Your task to perform on an android device: find which apps use the phone's location Image 0: 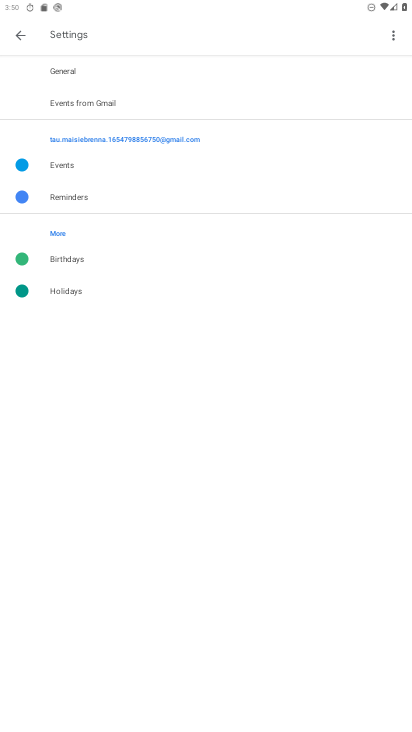
Step 0: press home button
Your task to perform on an android device: find which apps use the phone's location Image 1: 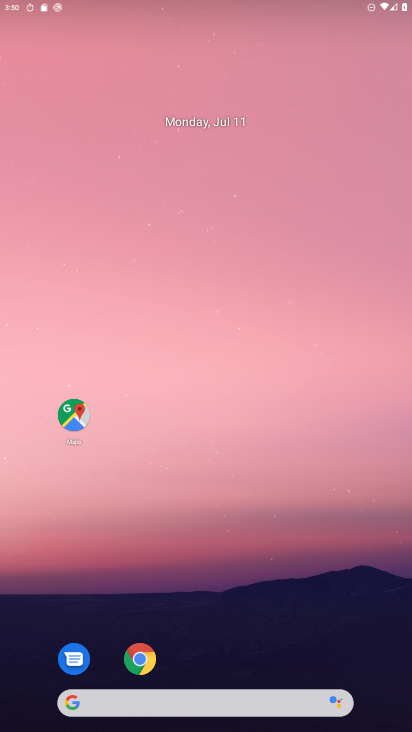
Step 1: drag from (185, 678) to (183, 276)
Your task to perform on an android device: find which apps use the phone's location Image 2: 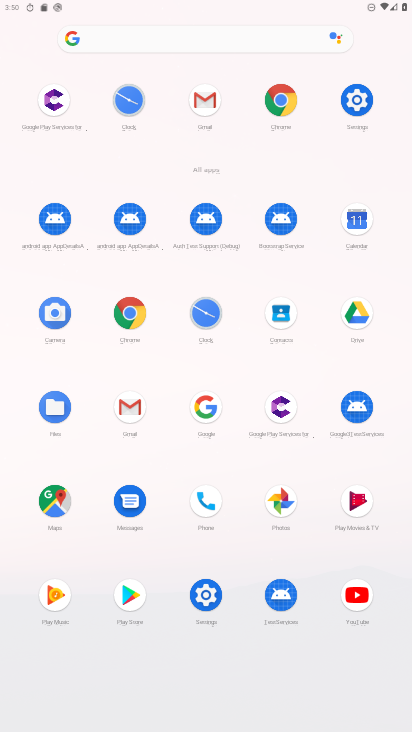
Step 2: click (346, 93)
Your task to perform on an android device: find which apps use the phone's location Image 3: 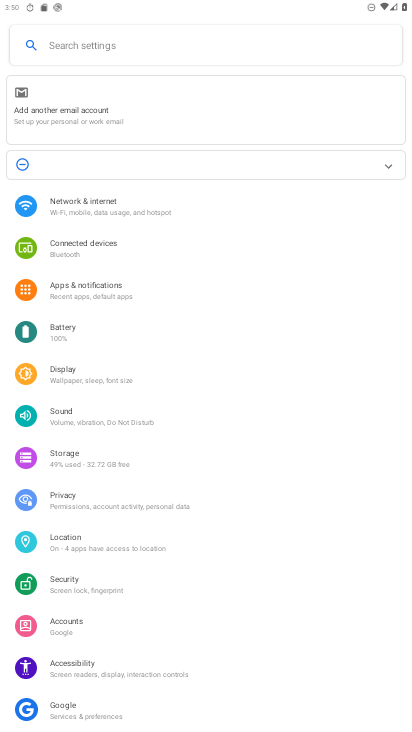
Step 3: click (118, 532)
Your task to perform on an android device: find which apps use the phone's location Image 4: 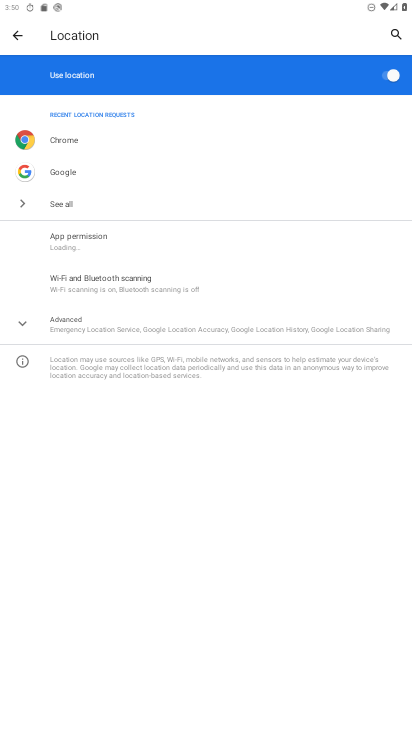
Step 4: task complete